Your task to perform on an android device: Add acer nitro to the cart on target Image 0: 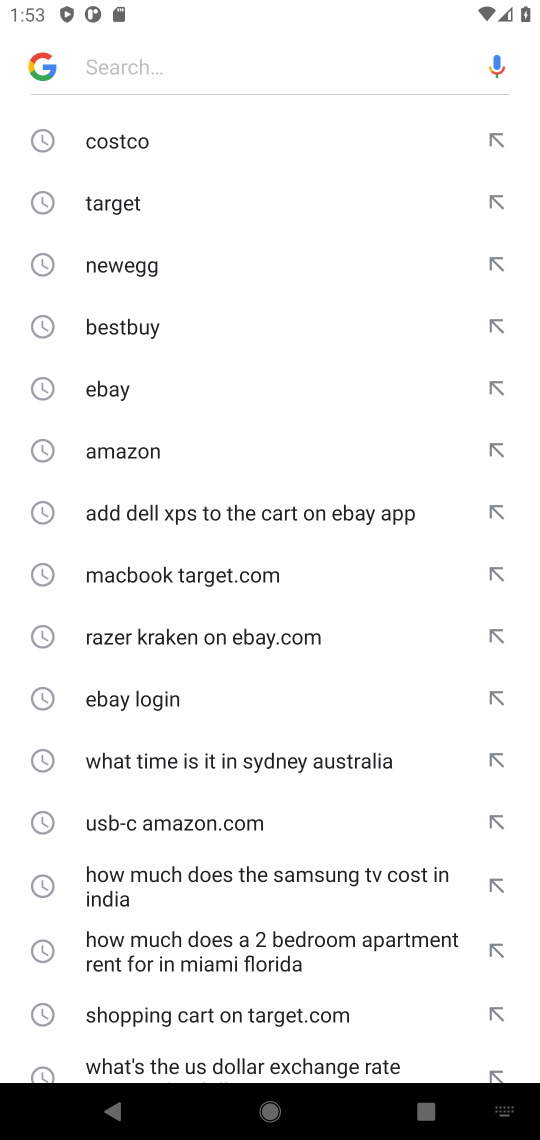
Step 0: press home button
Your task to perform on an android device: Add acer nitro to the cart on target Image 1: 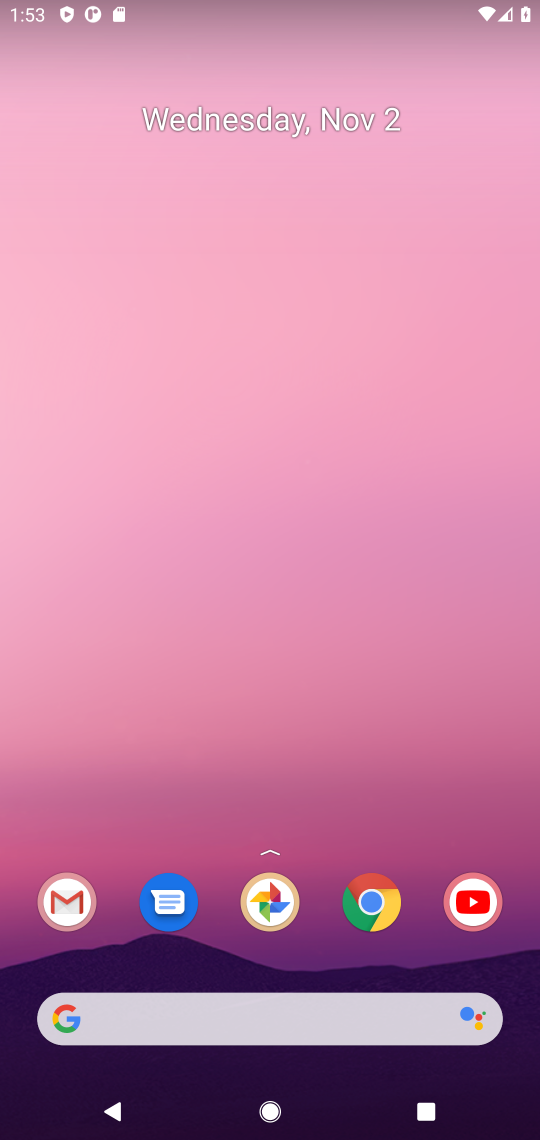
Step 1: click (274, 1002)
Your task to perform on an android device: Add acer nitro to the cart on target Image 2: 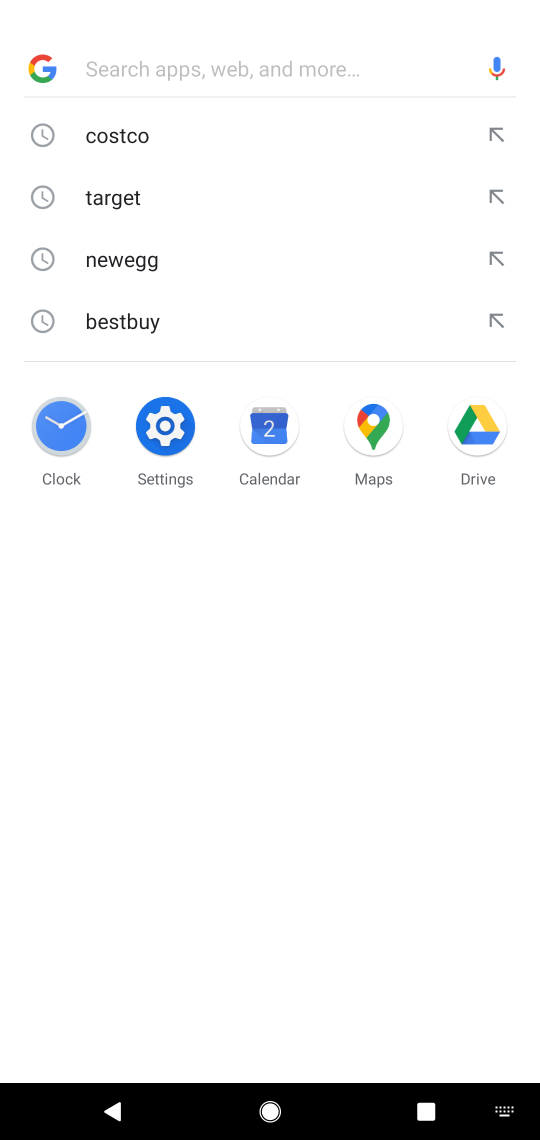
Step 2: click (138, 193)
Your task to perform on an android device: Add acer nitro to the cart on target Image 3: 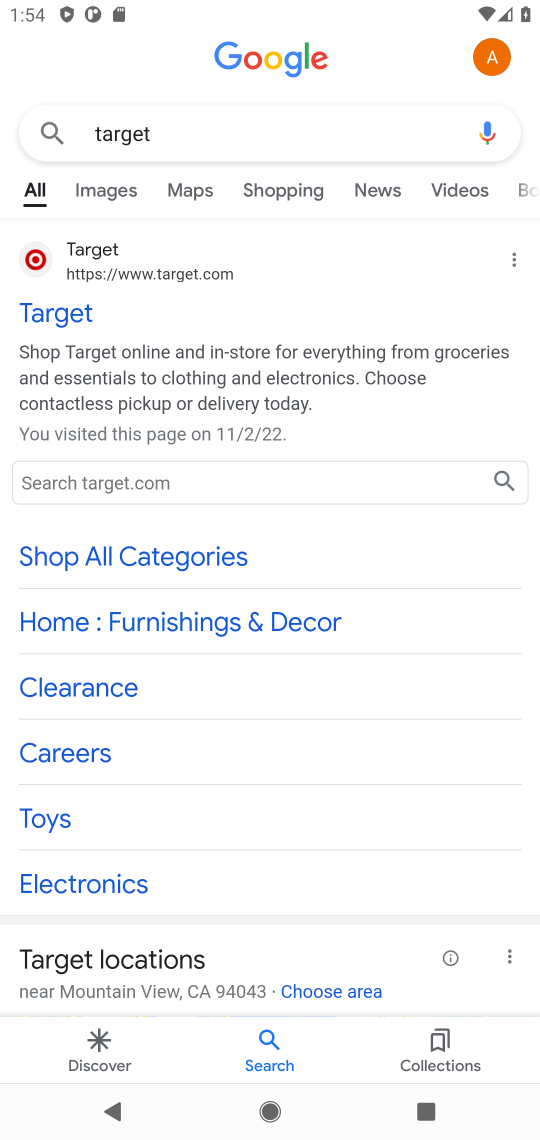
Step 3: click (57, 302)
Your task to perform on an android device: Add acer nitro to the cart on target Image 4: 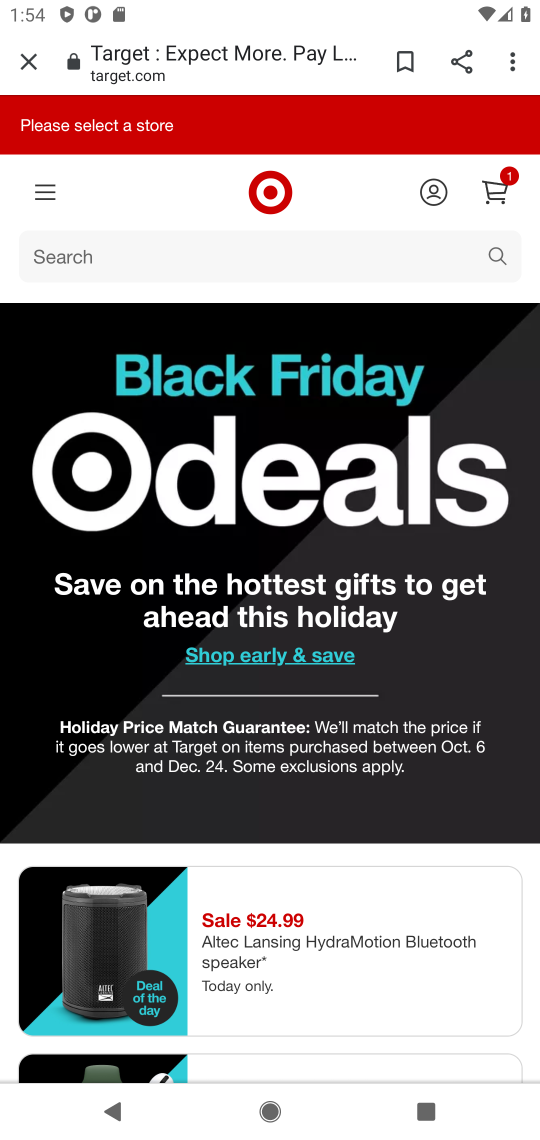
Step 4: click (139, 250)
Your task to perform on an android device: Add acer nitro to the cart on target Image 5: 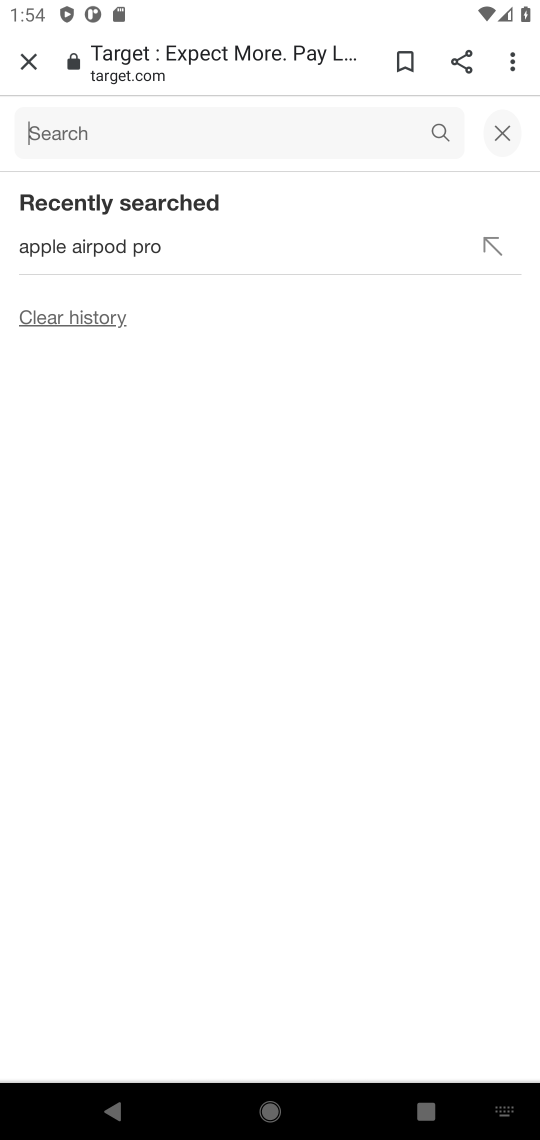
Step 5: type "acer nitro"
Your task to perform on an android device: Add acer nitro to the cart on target Image 6: 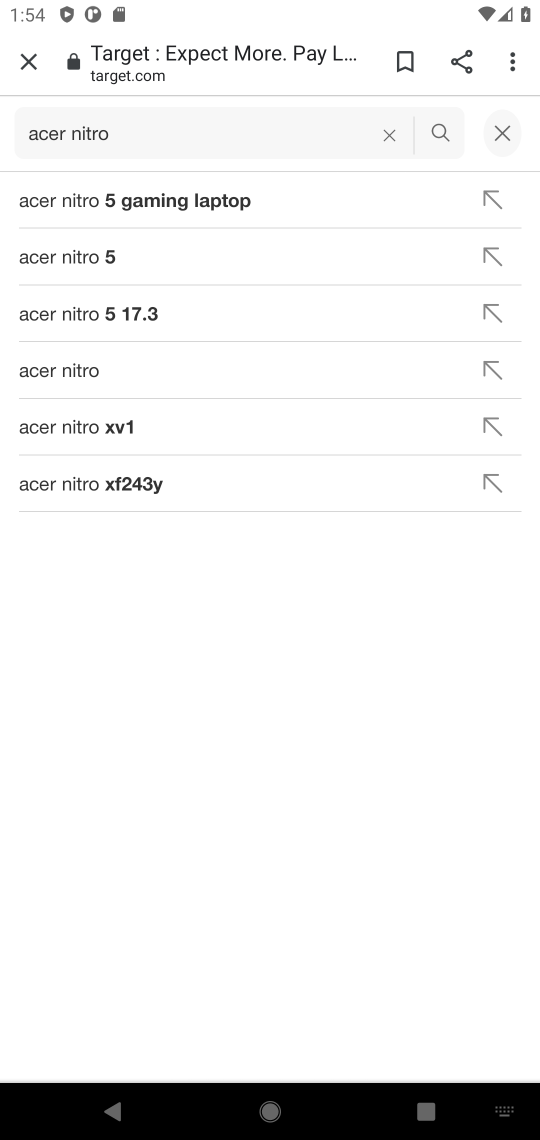
Step 6: click (440, 132)
Your task to perform on an android device: Add acer nitro to the cart on target Image 7: 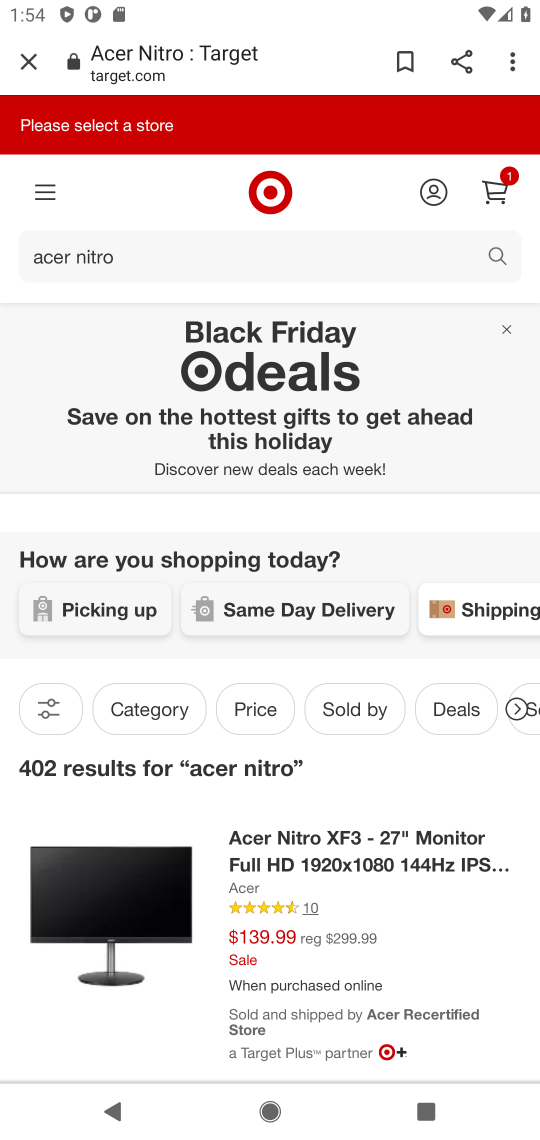
Step 7: drag from (449, 896) to (385, 470)
Your task to perform on an android device: Add acer nitro to the cart on target Image 8: 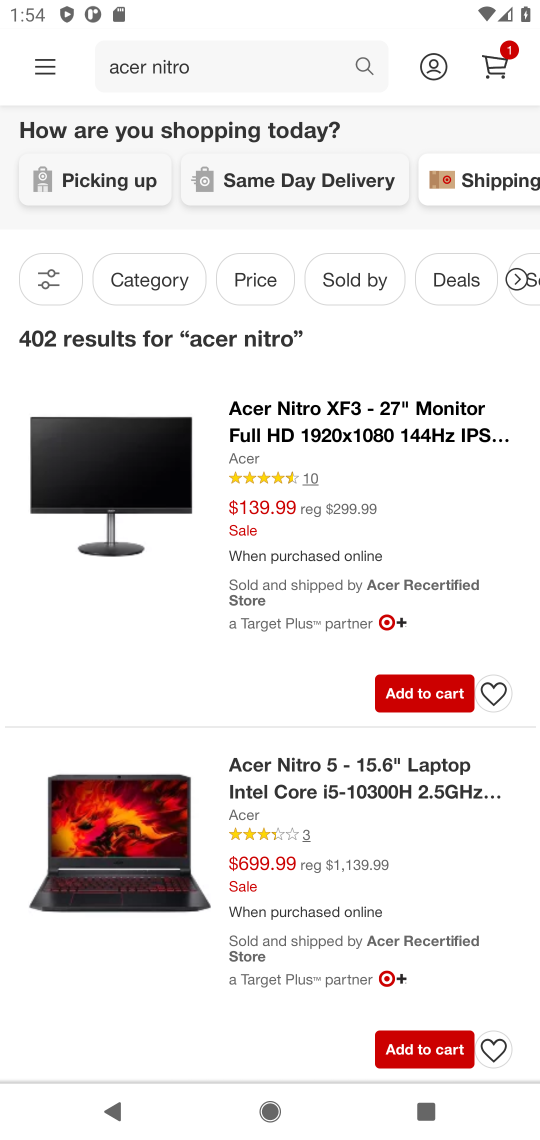
Step 8: click (419, 696)
Your task to perform on an android device: Add acer nitro to the cart on target Image 9: 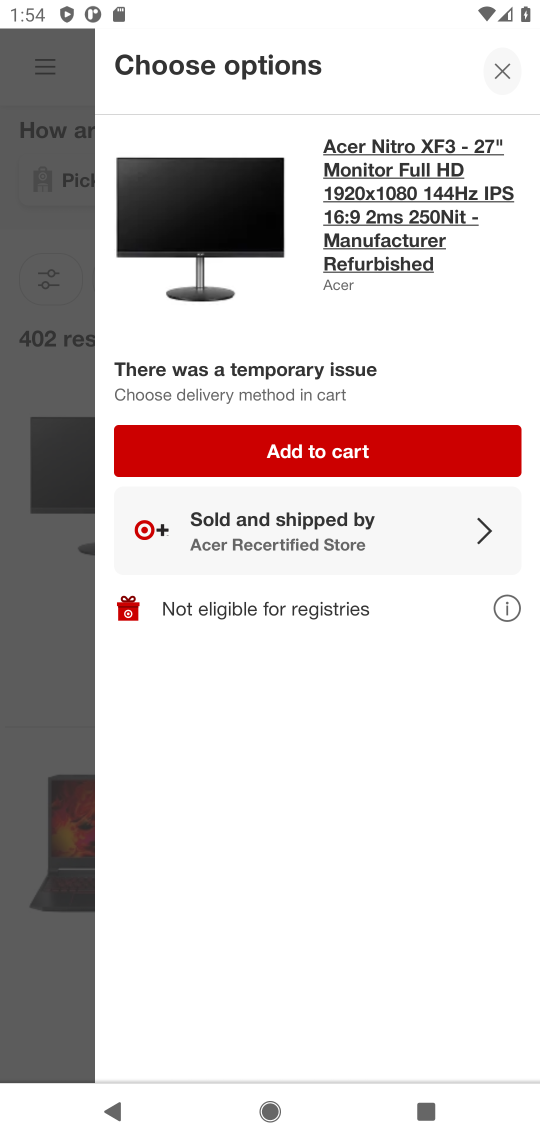
Step 9: click (331, 460)
Your task to perform on an android device: Add acer nitro to the cart on target Image 10: 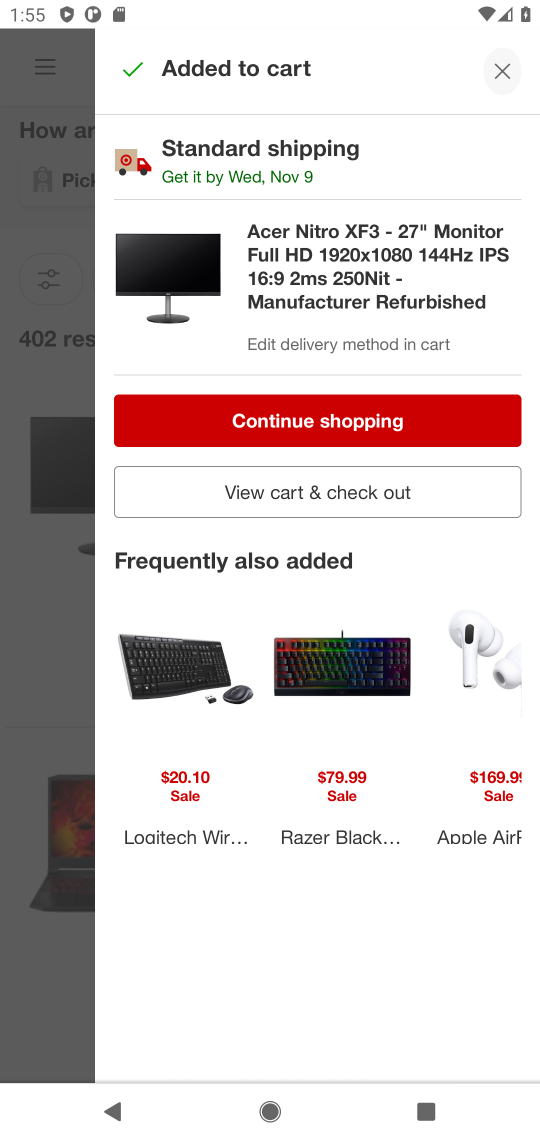
Step 10: click (500, 71)
Your task to perform on an android device: Add acer nitro to the cart on target Image 11: 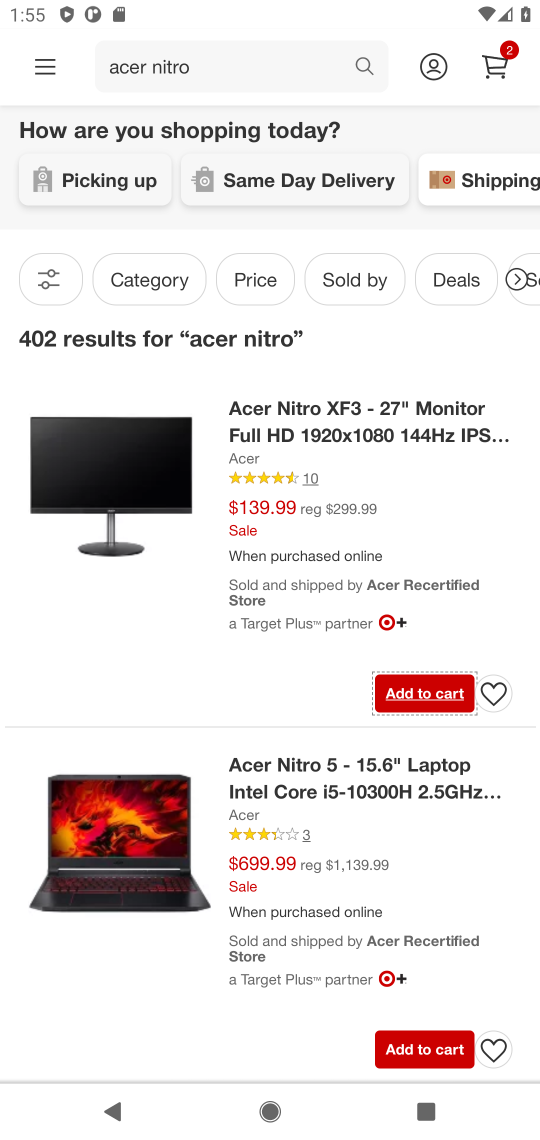
Step 11: task complete